Your task to perform on an android device: Is it going to rain this weekend? Image 0: 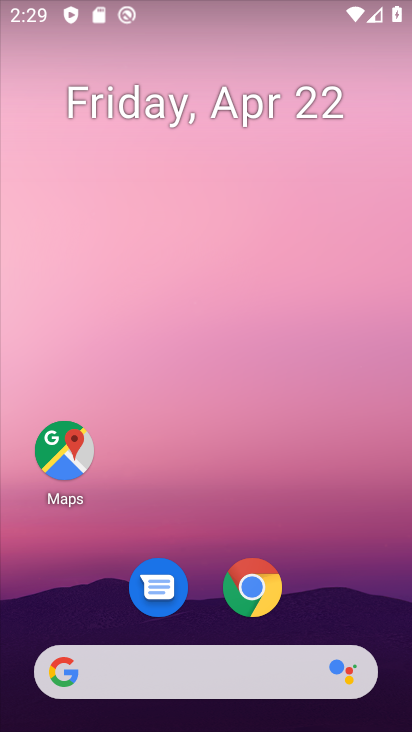
Step 0: drag from (316, 542) to (353, 145)
Your task to perform on an android device: Is it going to rain this weekend? Image 1: 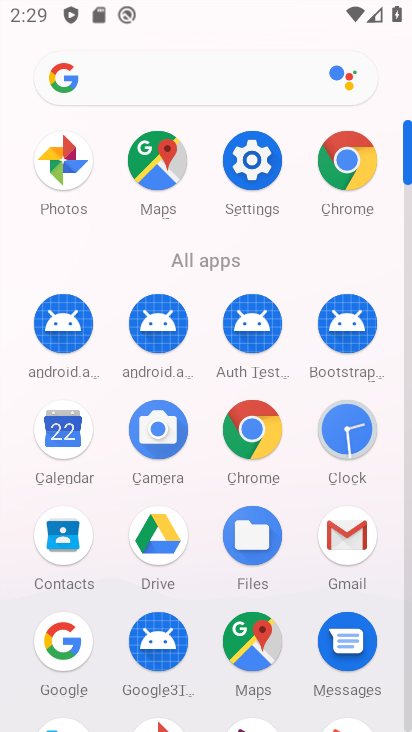
Step 1: click (335, 182)
Your task to perform on an android device: Is it going to rain this weekend? Image 2: 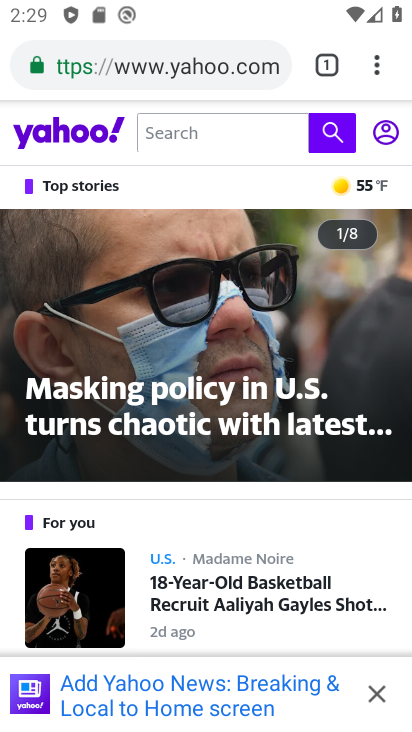
Step 2: click (230, 59)
Your task to perform on an android device: Is it going to rain this weekend? Image 3: 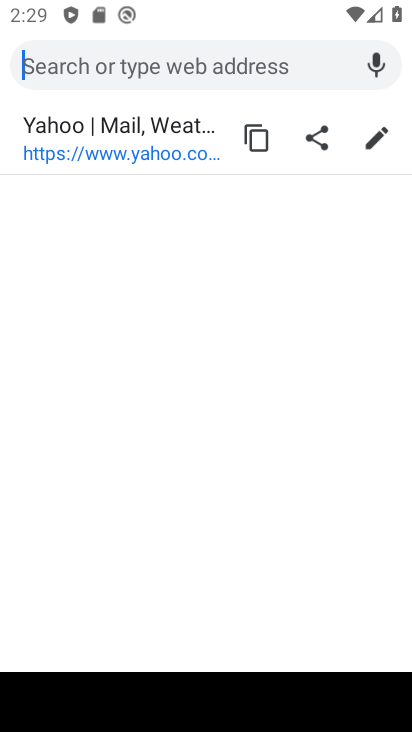
Step 3: type "is it going to rain this weekend"
Your task to perform on an android device: Is it going to rain this weekend? Image 4: 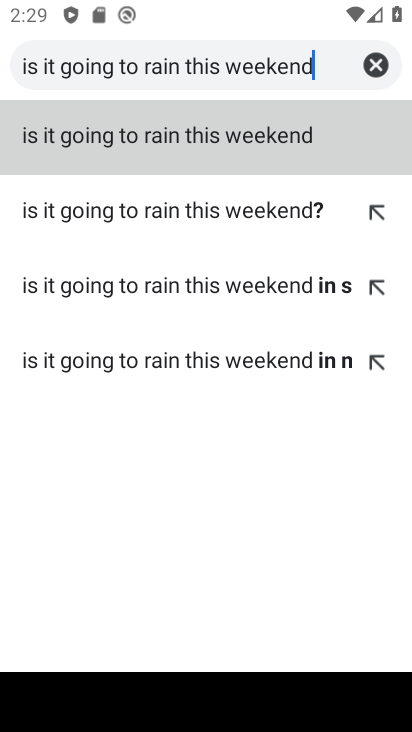
Step 4: click (153, 151)
Your task to perform on an android device: Is it going to rain this weekend? Image 5: 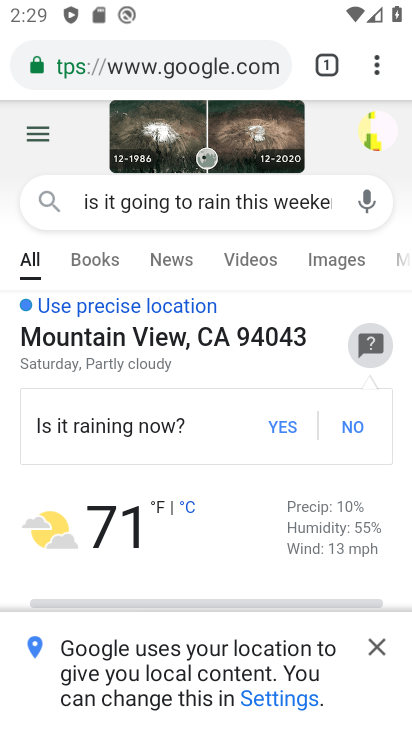
Step 5: task complete